Your task to perform on an android device: Go to privacy settings Image 0: 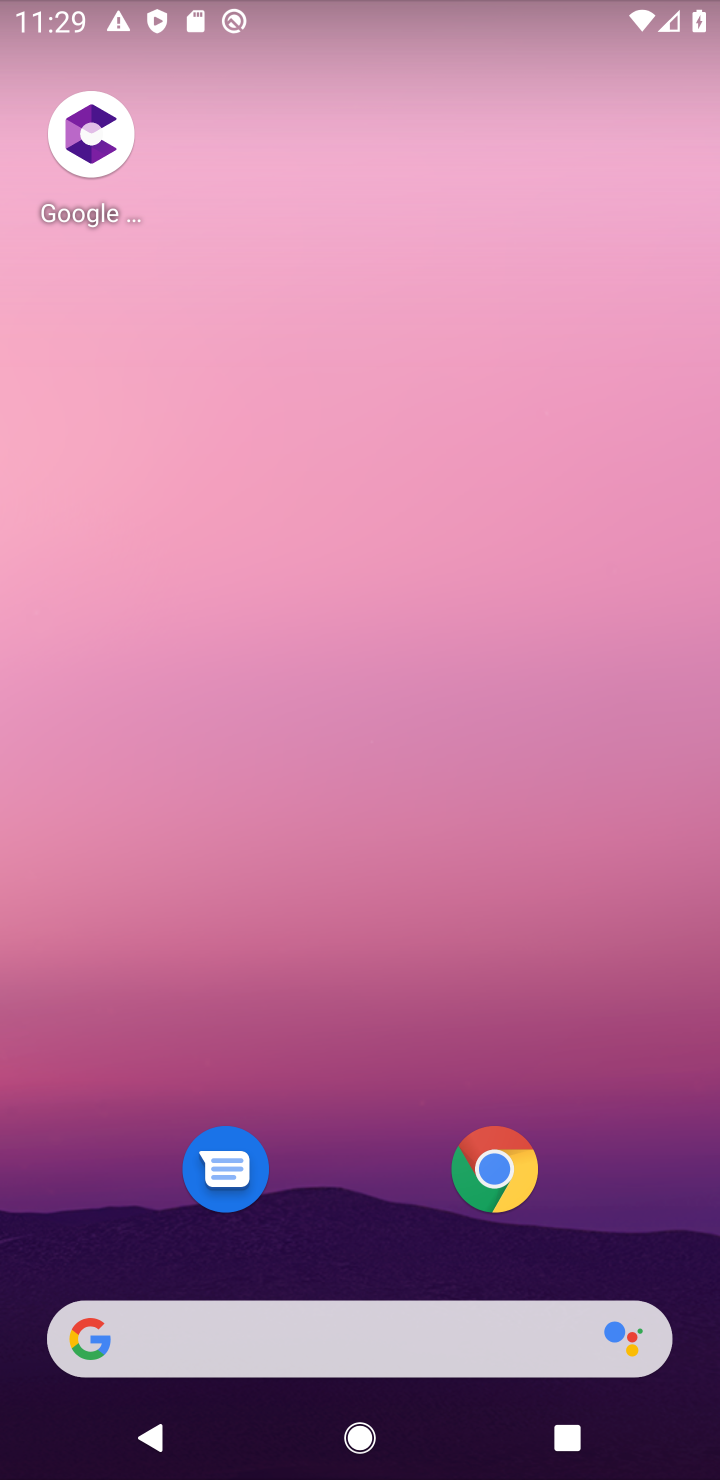
Step 0: drag from (325, 421) to (364, 213)
Your task to perform on an android device: Go to privacy settings Image 1: 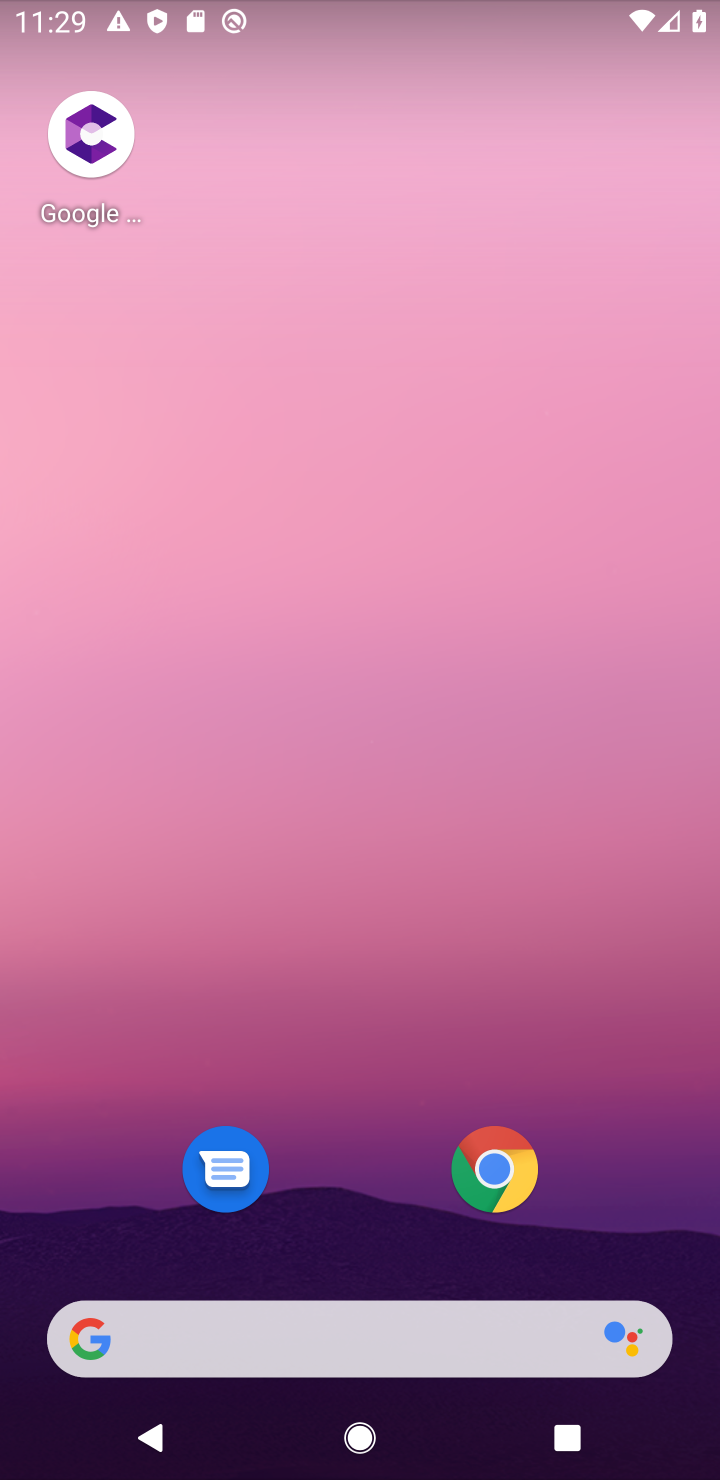
Step 1: drag from (451, 211) to (490, 112)
Your task to perform on an android device: Go to privacy settings Image 2: 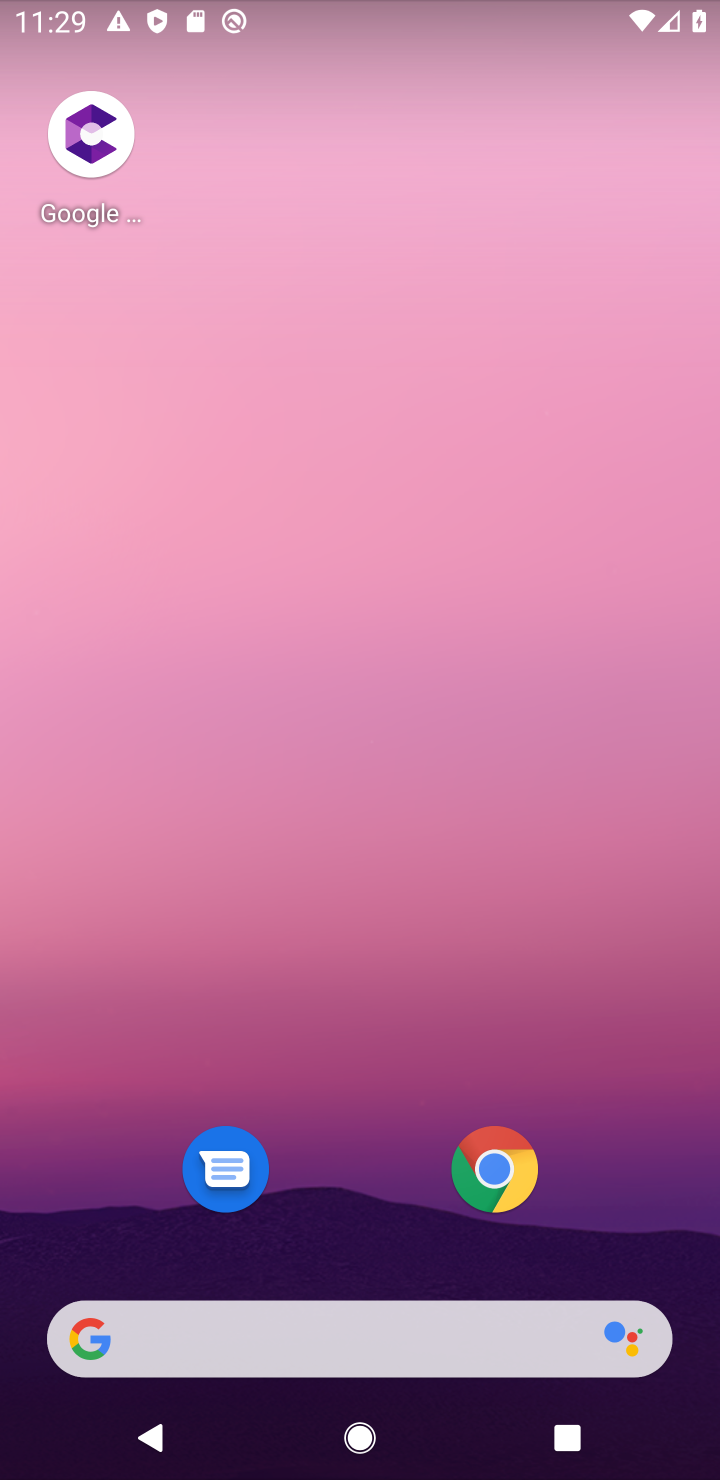
Step 2: drag from (379, 722) to (478, 42)
Your task to perform on an android device: Go to privacy settings Image 3: 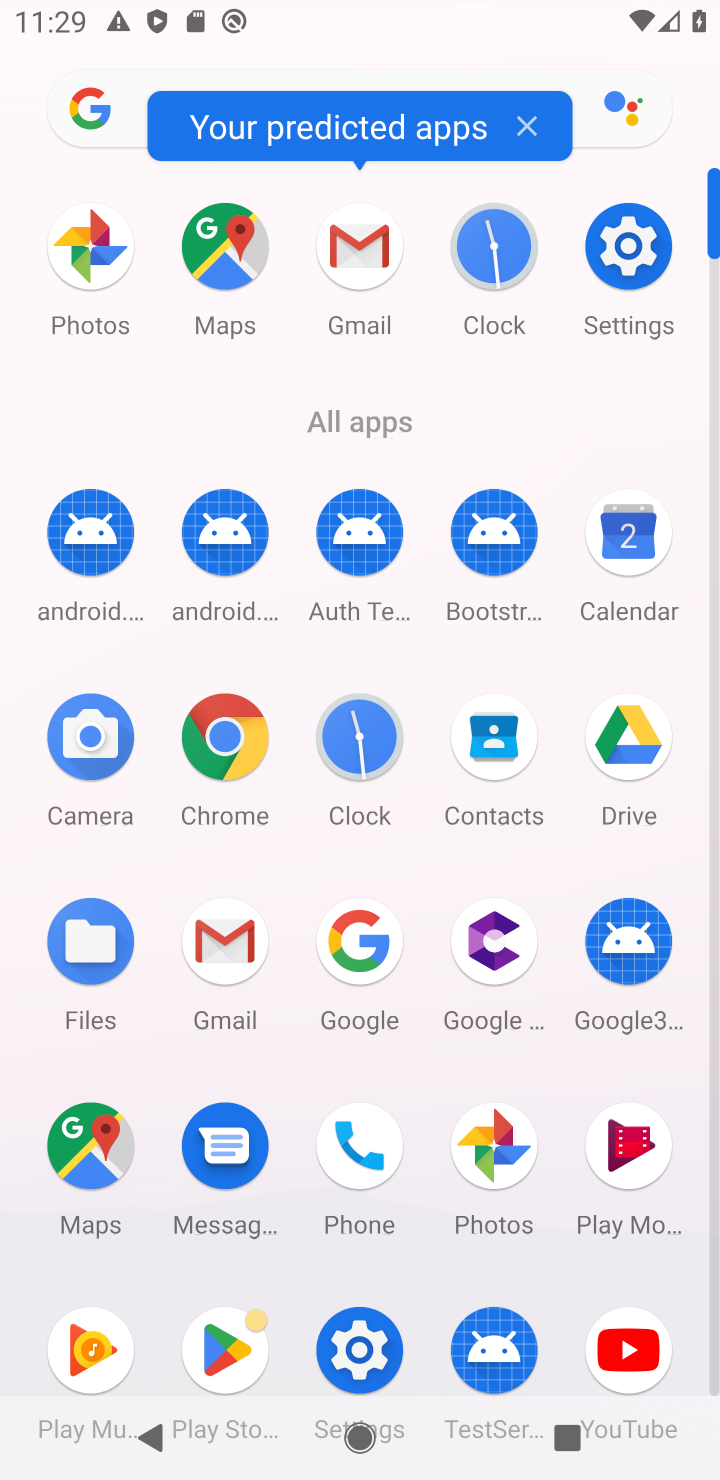
Step 3: click (594, 249)
Your task to perform on an android device: Go to privacy settings Image 4: 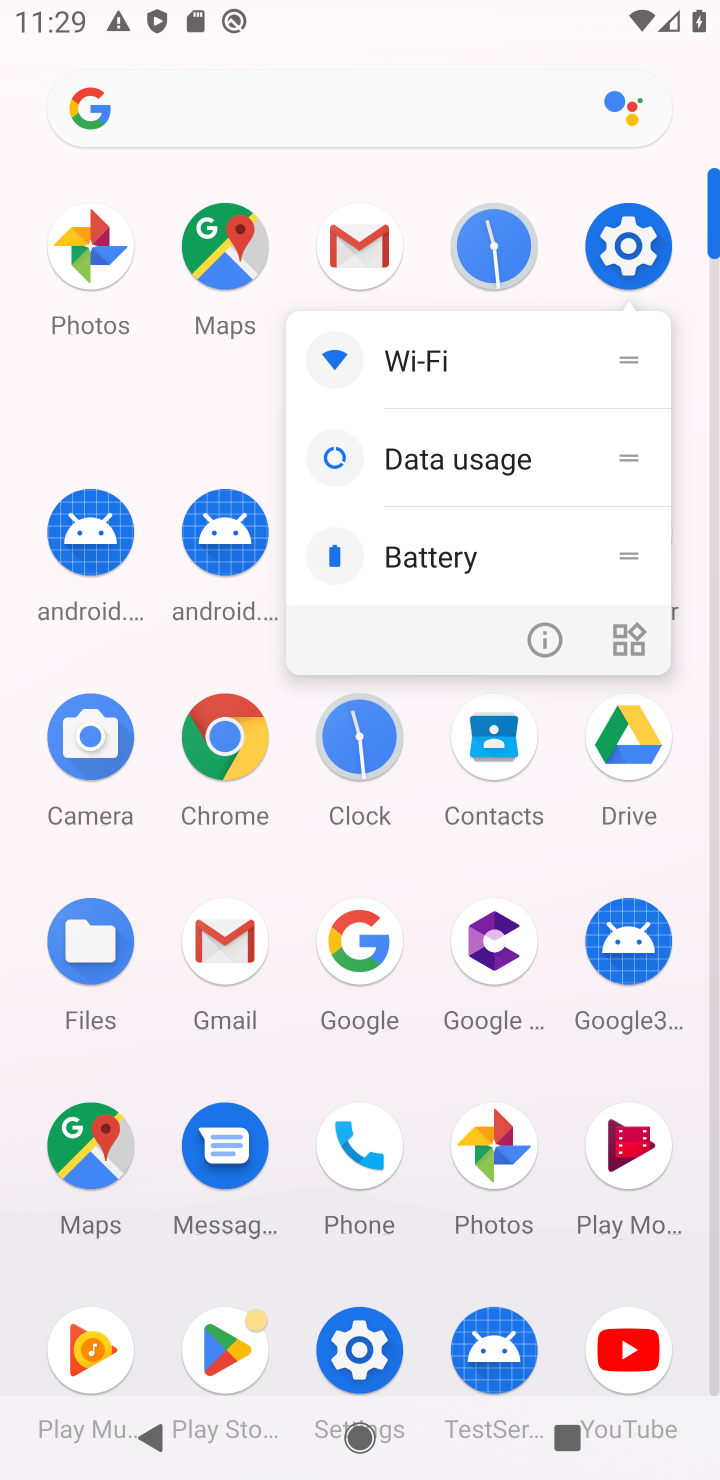
Step 4: click (617, 244)
Your task to perform on an android device: Go to privacy settings Image 5: 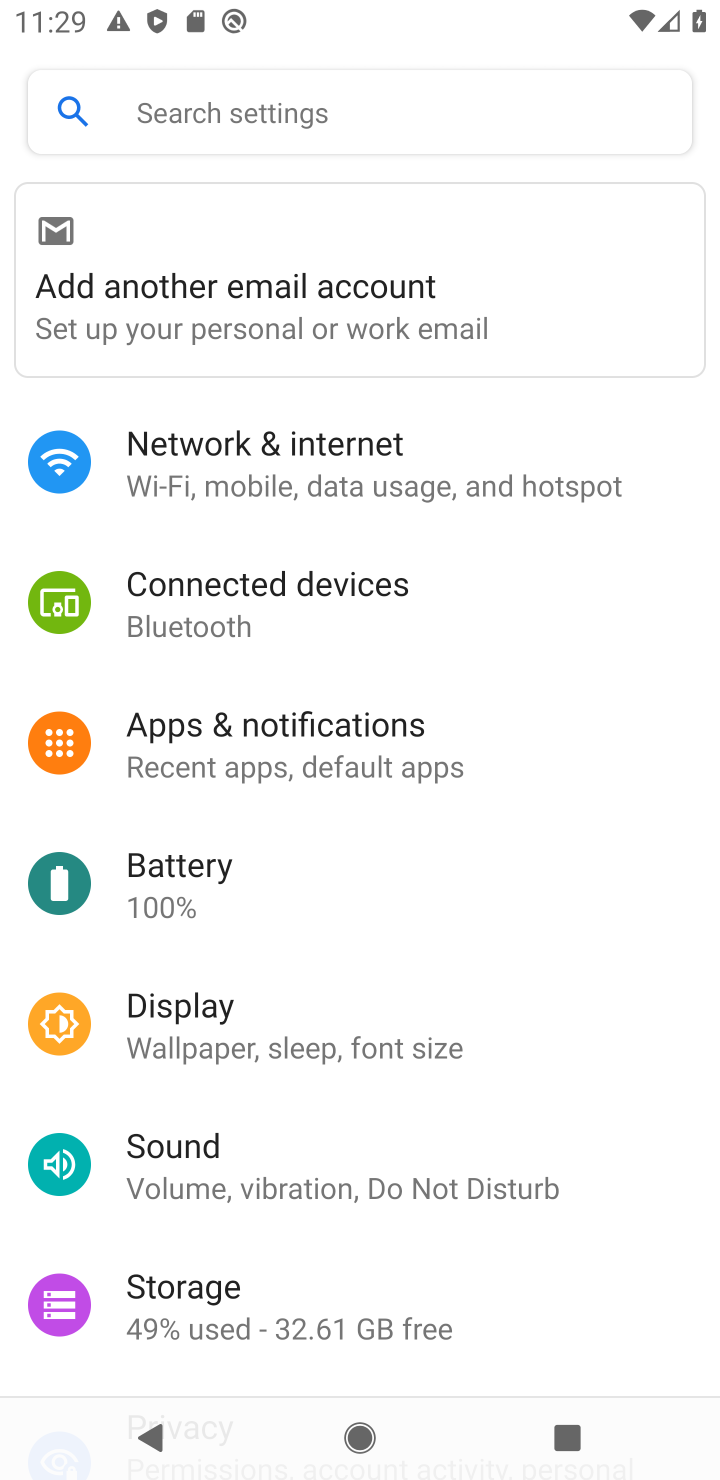
Step 5: drag from (450, 1174) to (528, 202)
Your task to perform on an android device: Go to privacy settings Image 6: 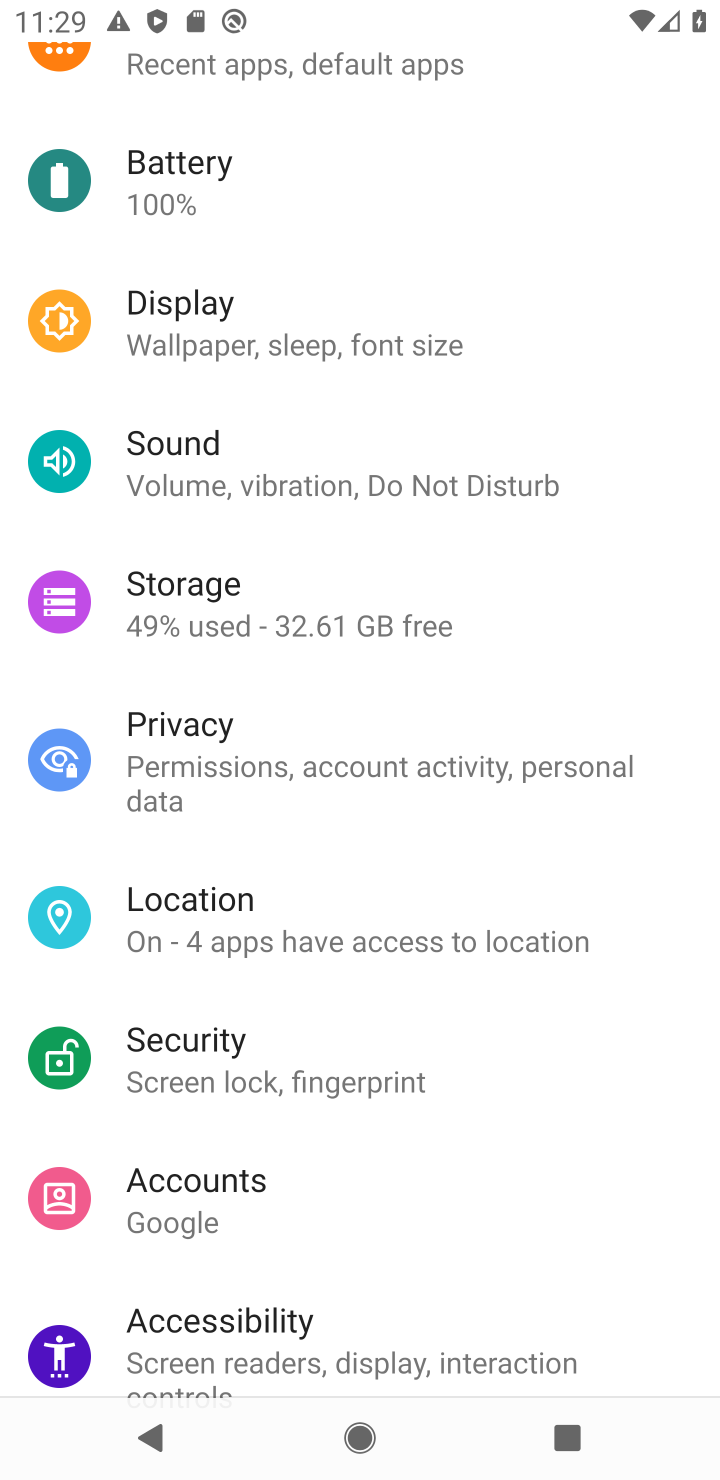
Step 6: click (273, 753)
Your task to perform on an android device: Go to privacy settings Image 7: 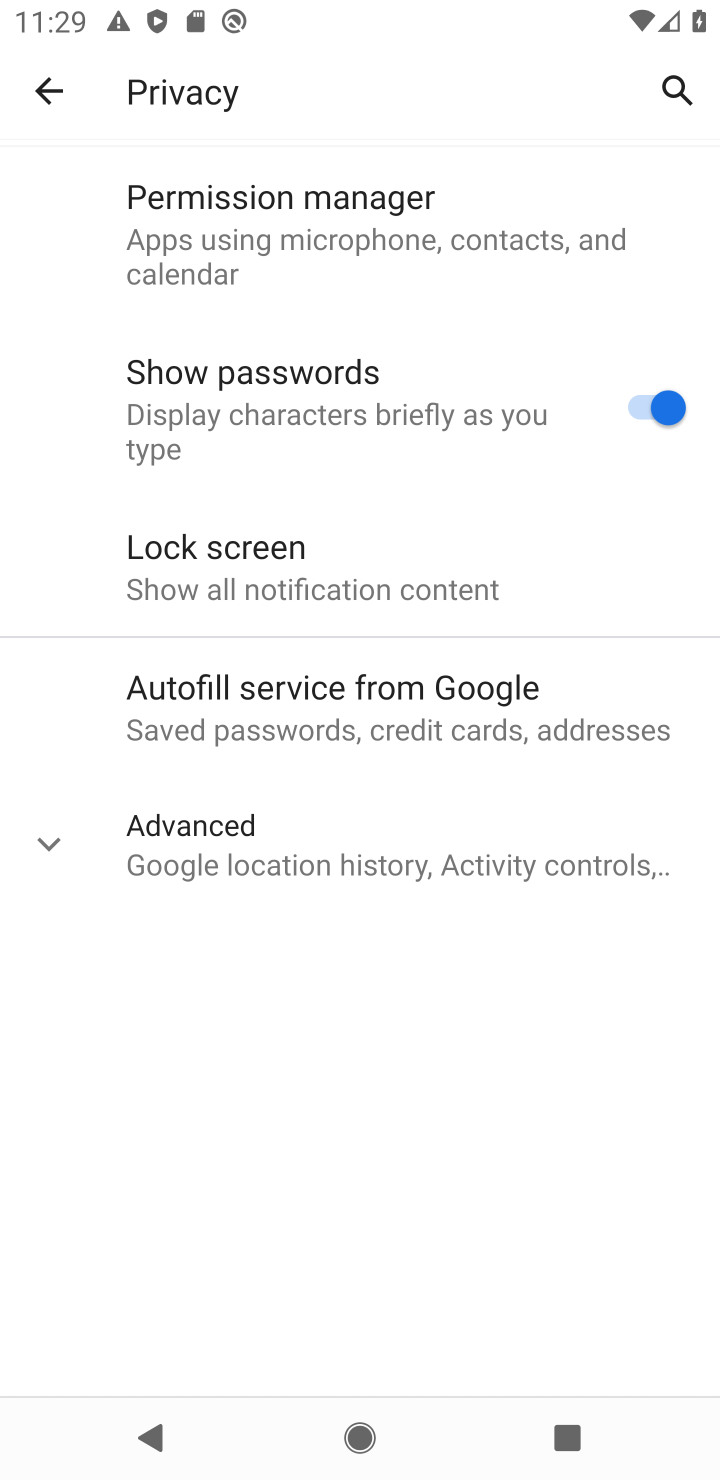
Step 7: task complete